Your task to perform on an android device: turn off smart reply in the gmail app Image 0: 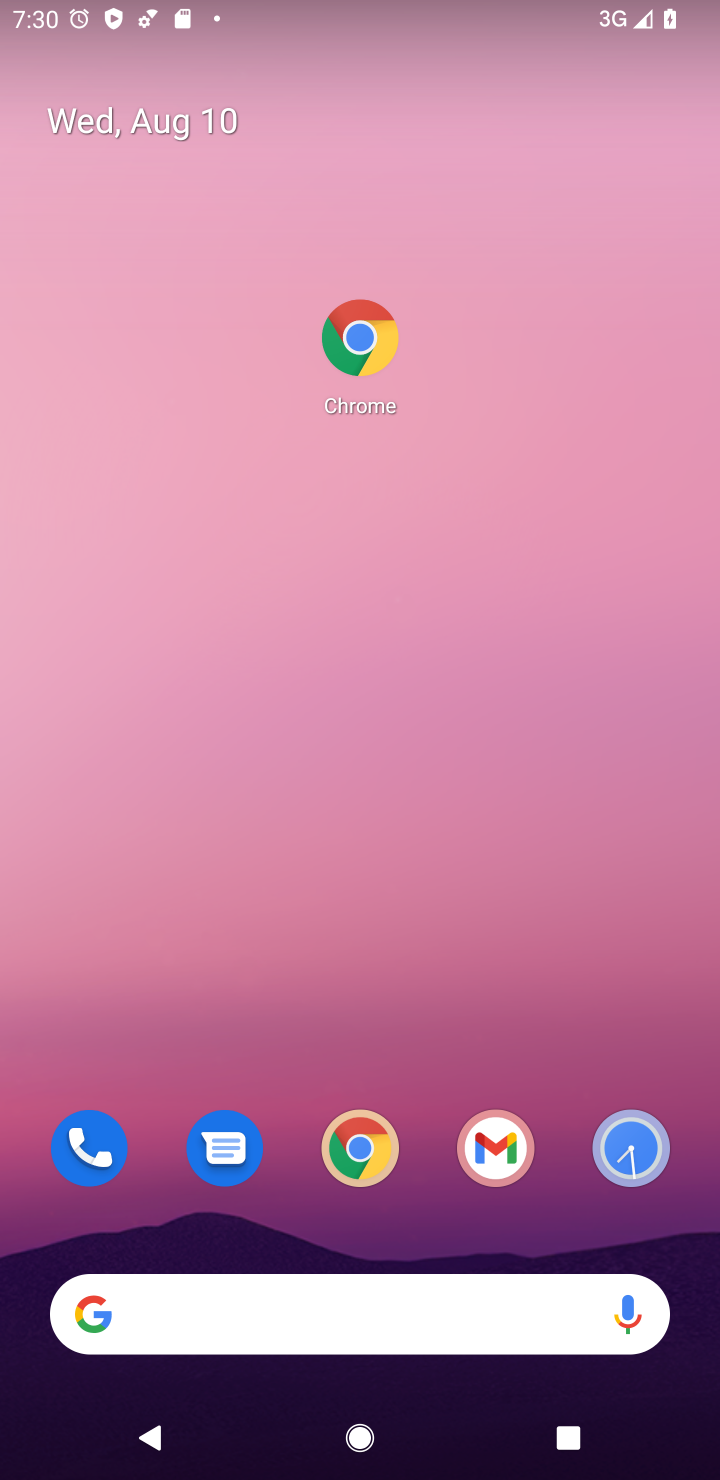
Step 0: click (507, 1164)
Your task to perform on an android device: turn off smart reply in the gmail app Image 1: 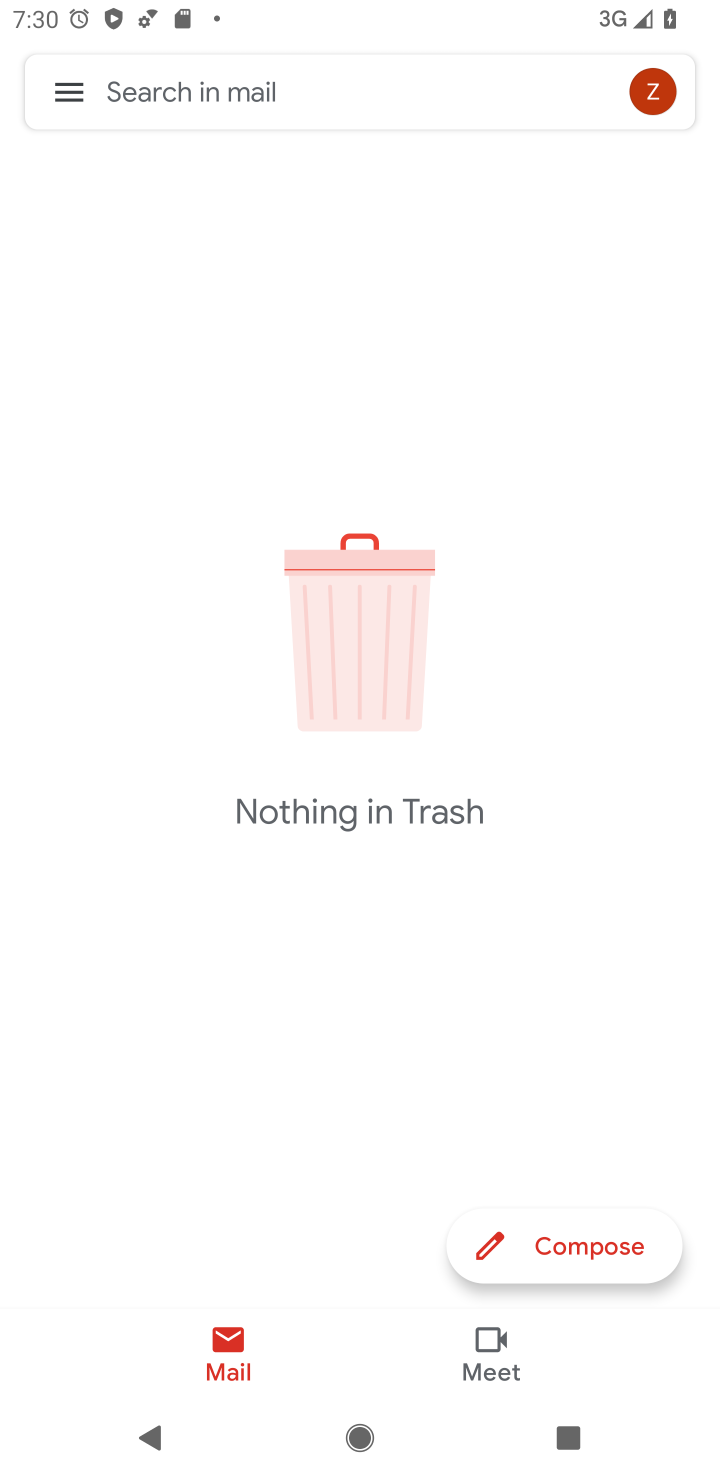
Step 1: click (70, 93)
Your task to perform on an android device: turn off smart reply in the gmail app Image 2: 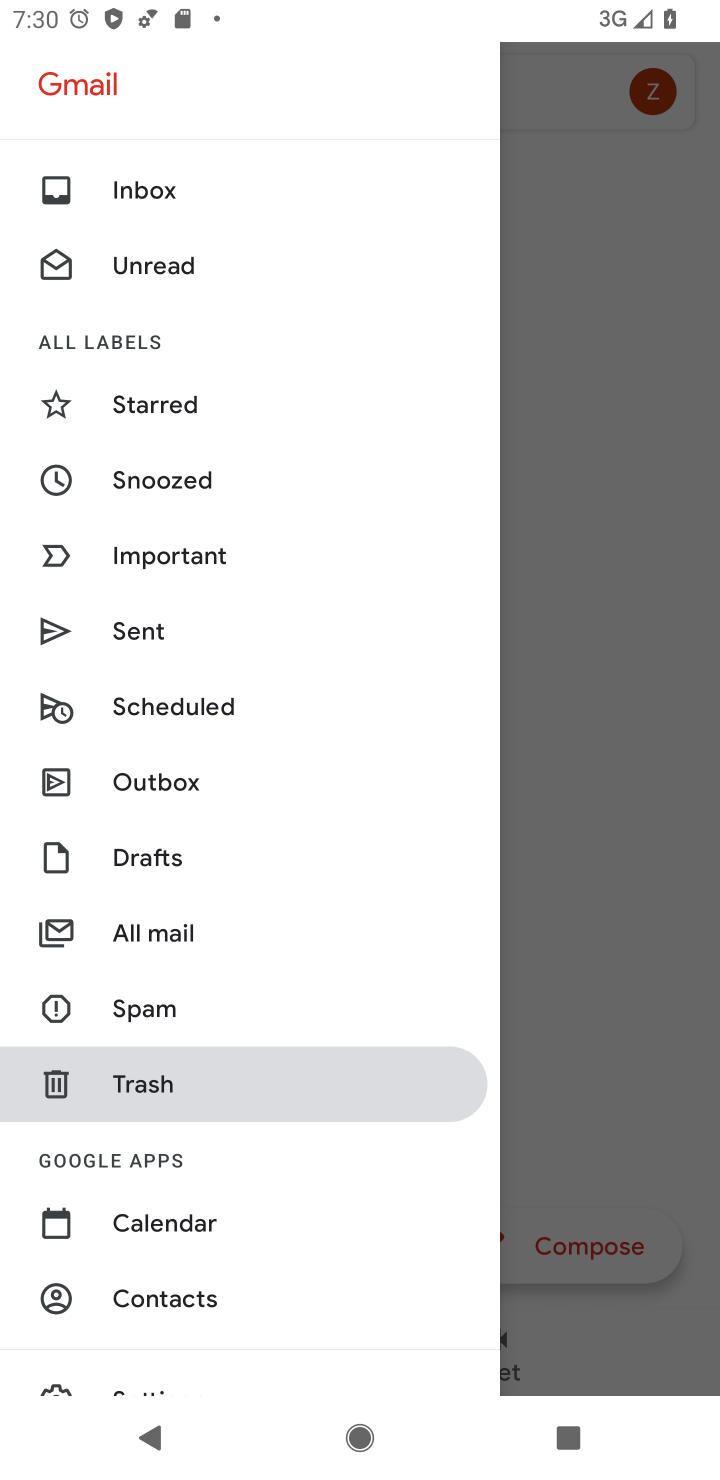
Step 2: drag from (289, 1291) to (263, 666)
Your task to perform on an android device: turn off smart reply in the gmail app Image 3: 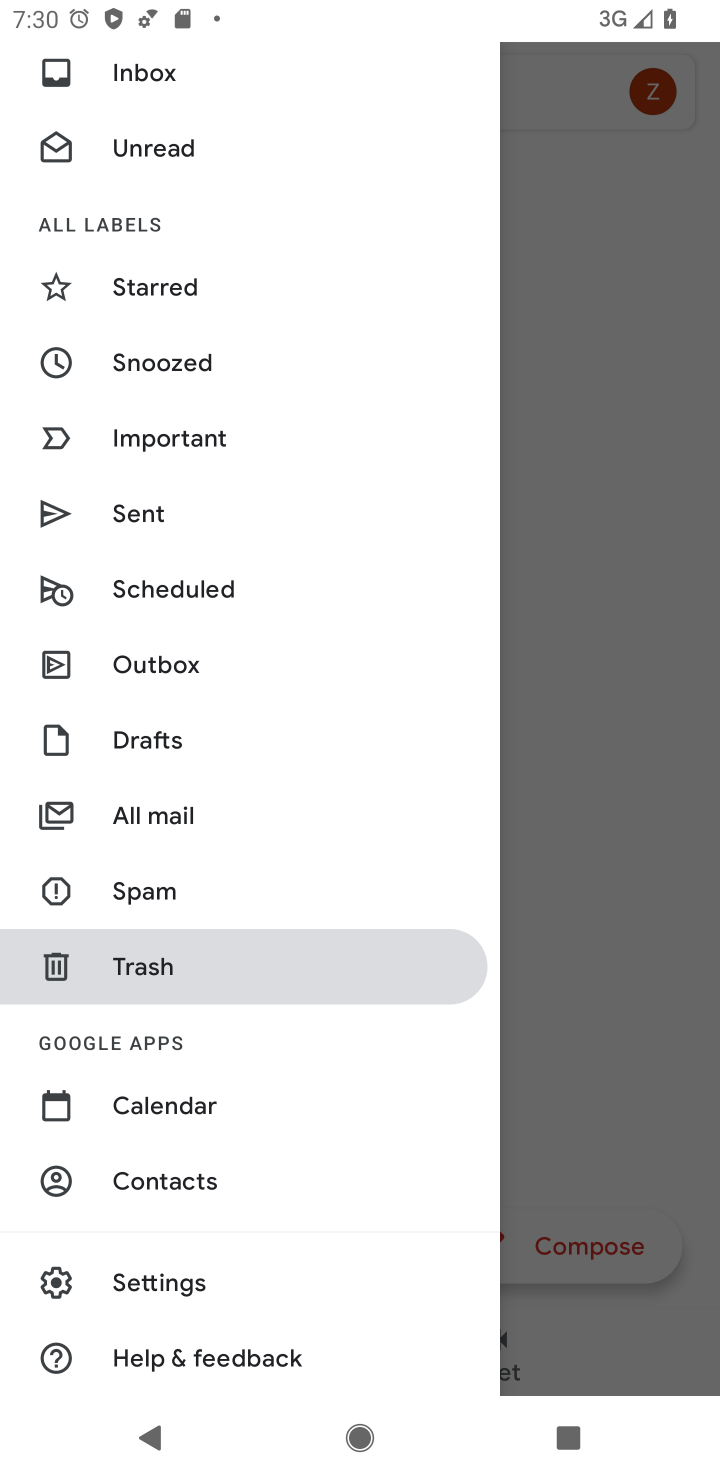
Step 3: click (134, 1285)
Your task to perform on an android device: turn off smart reply in the gmail app Image 4: 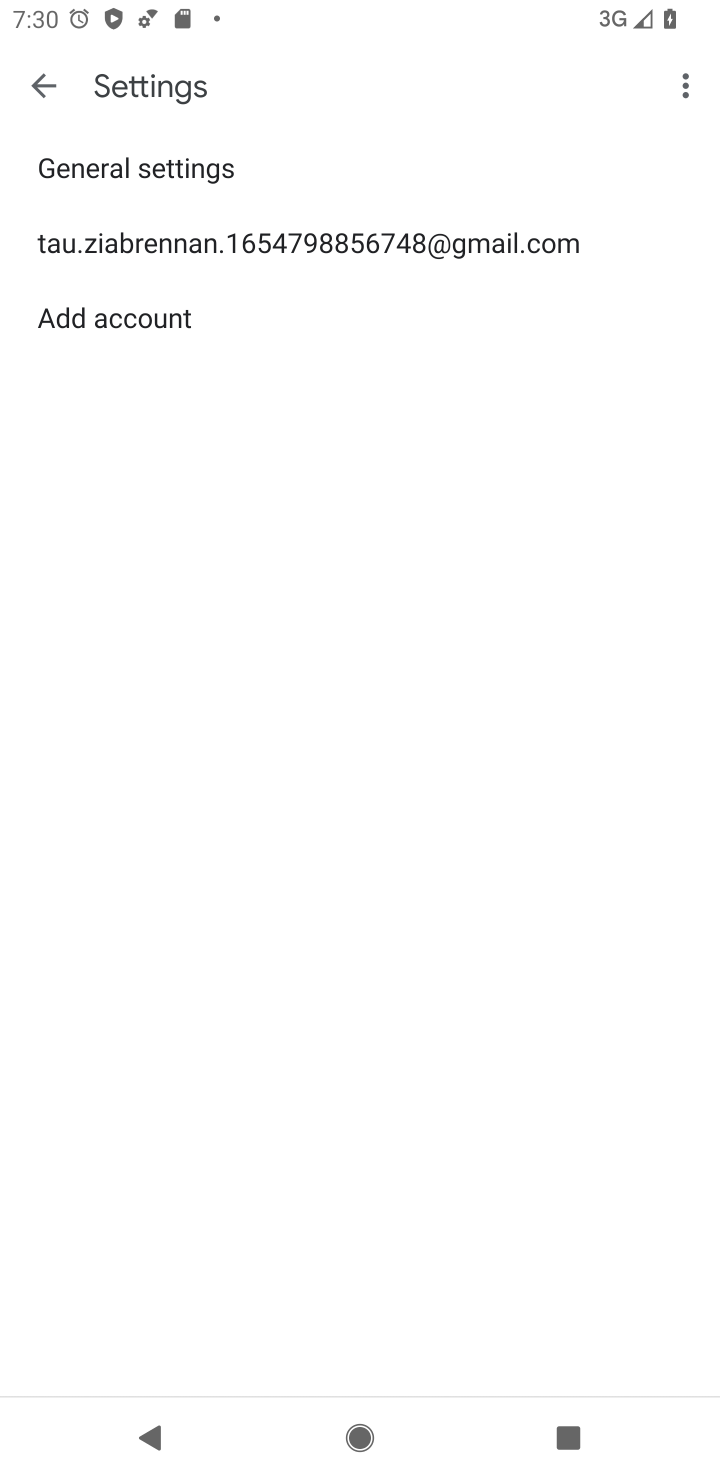
Step 4: click (143, 174)
Your task to perform on an android device: turn off smart reply in the gmail app Image 5: 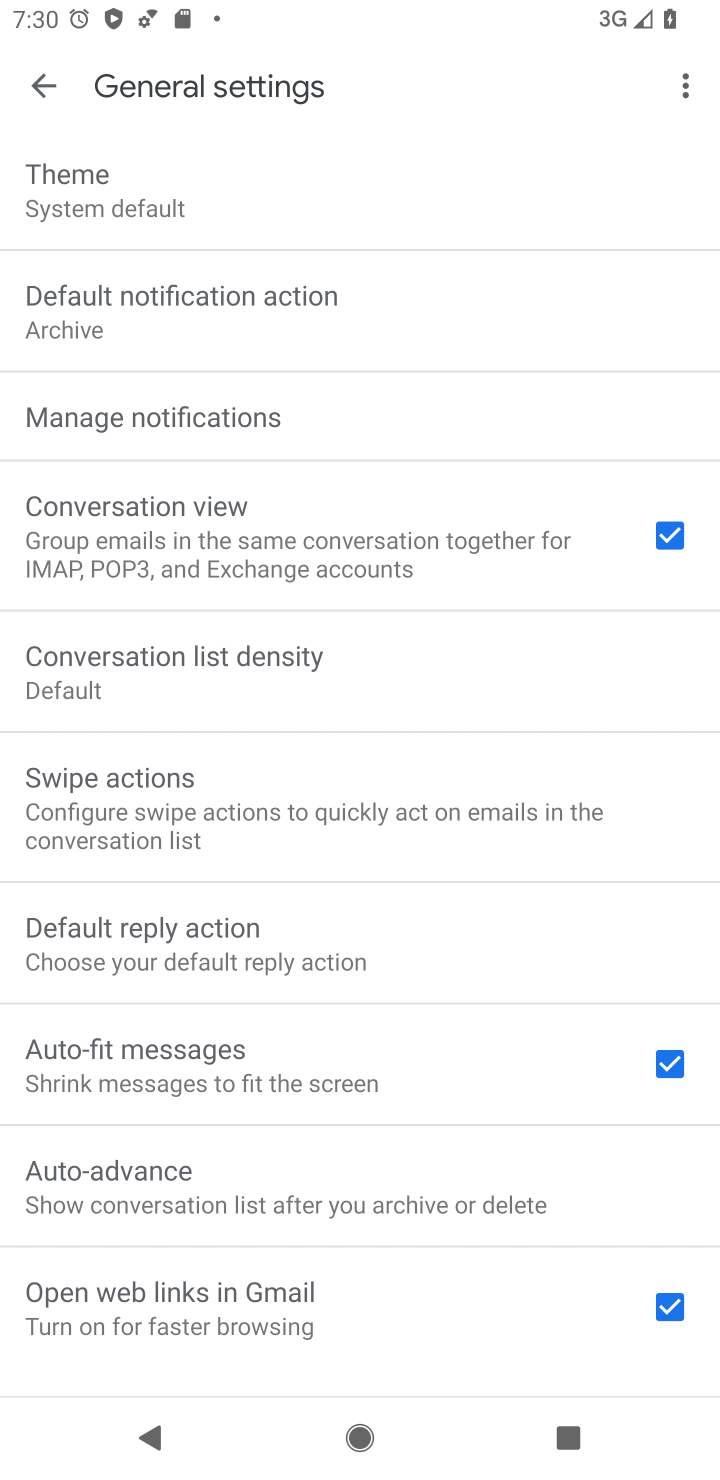
Step 5: click (305, 955)
Your task to perform on an android device: turn off smart reply in the gmail app Image 6: 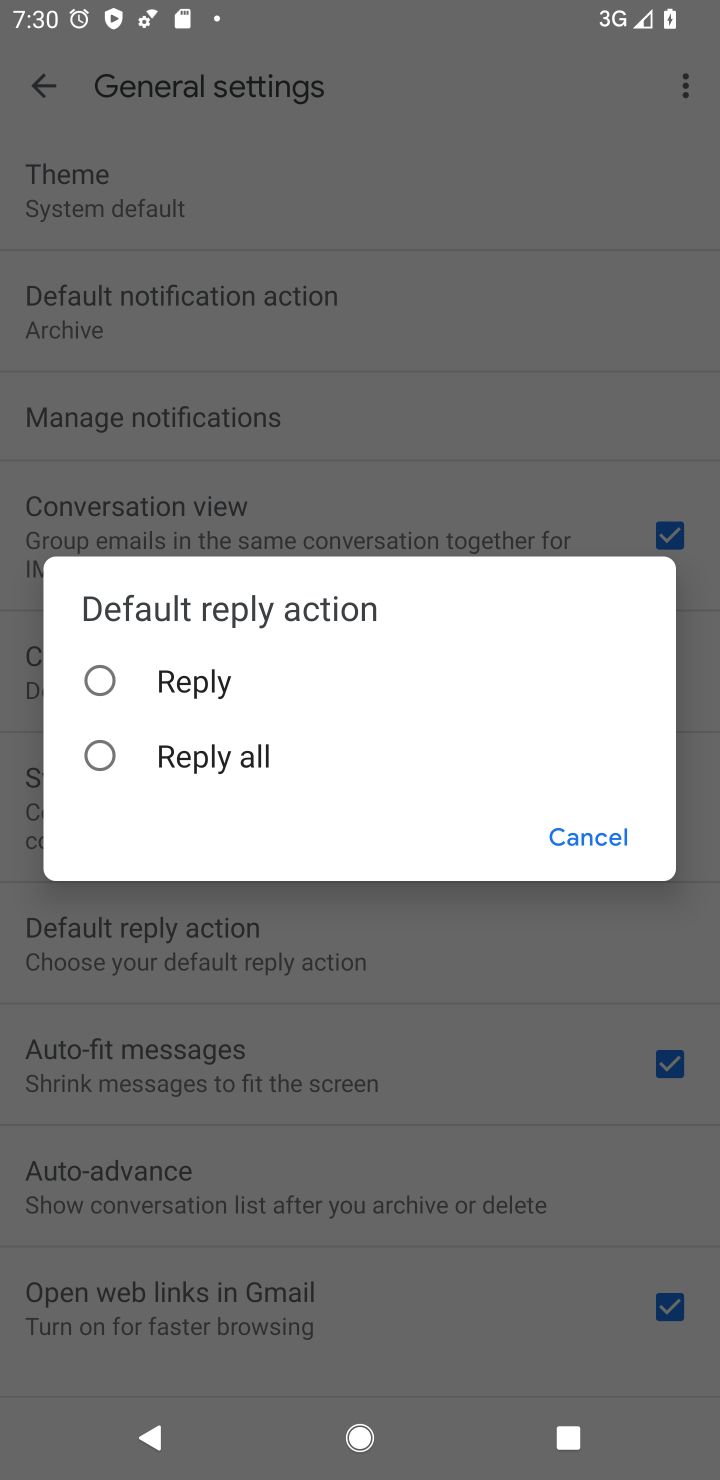
Step 6: click (579, 842)
Your task to perform on an android device: turn off smart reply in the gmail app Image 7: 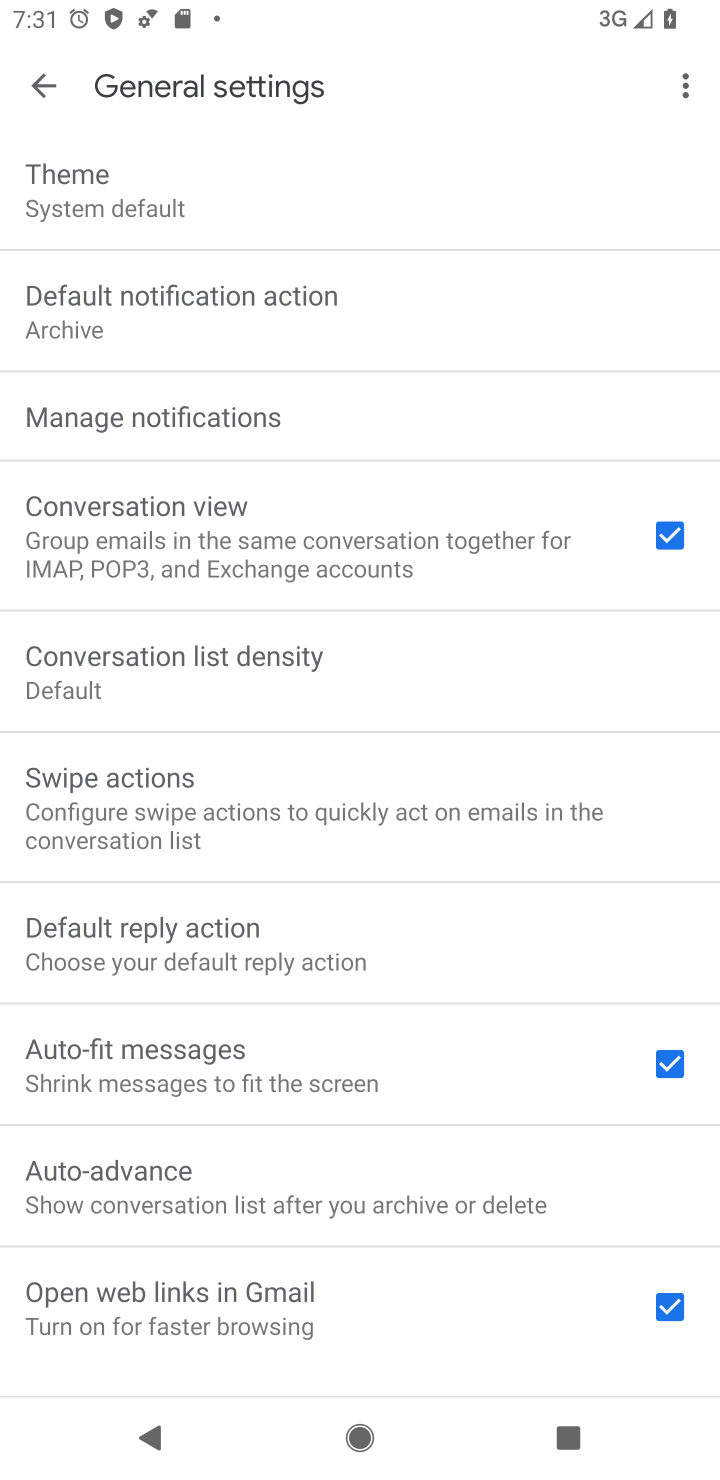
Step 7: task complete